Your task to perform on an android device: turn off improve location accuracy Image 0: 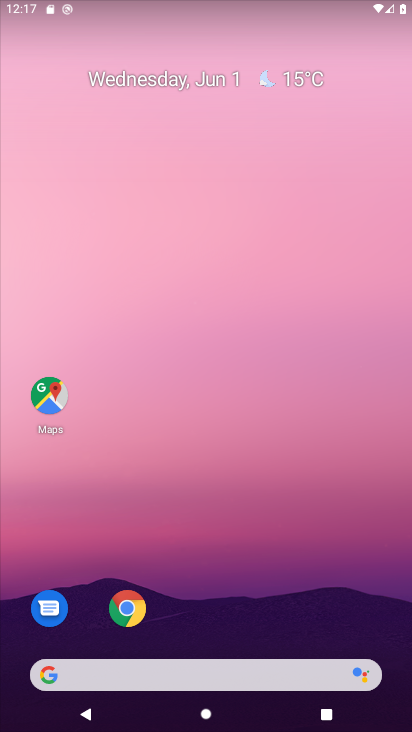
Step 0: drag from (231, 549) to (334, 116)
Your task to perform on an android device: turn off improve location accuracy Image 1: 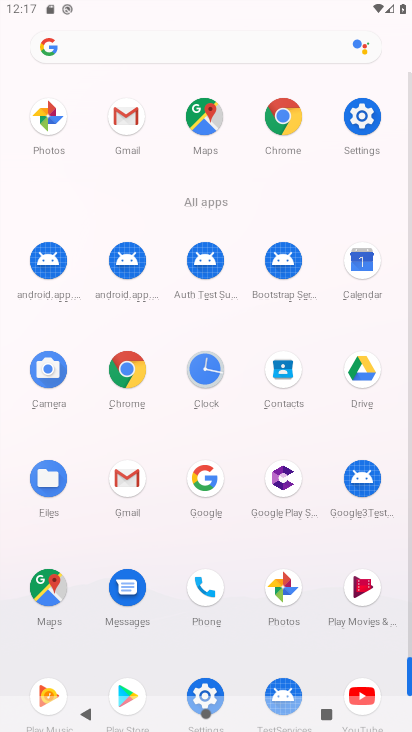
Step 1: click (365, 115)
Your task to perform on an android device: turn off improve location accuracy Image 2: 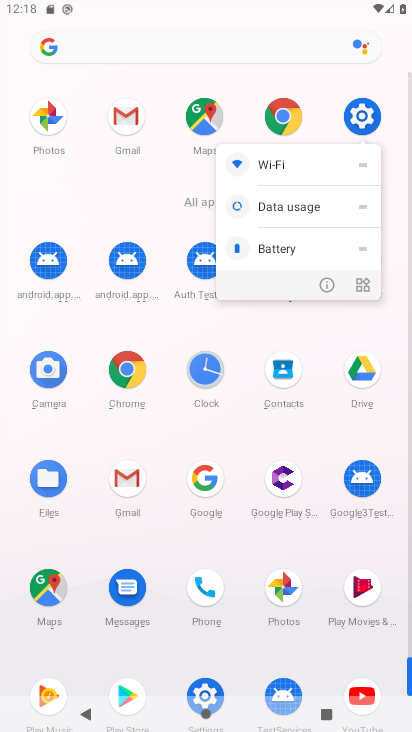
Step 2: click (363, 119)
Your task to perform on an android device: turn off improve location accuracy Image 3: 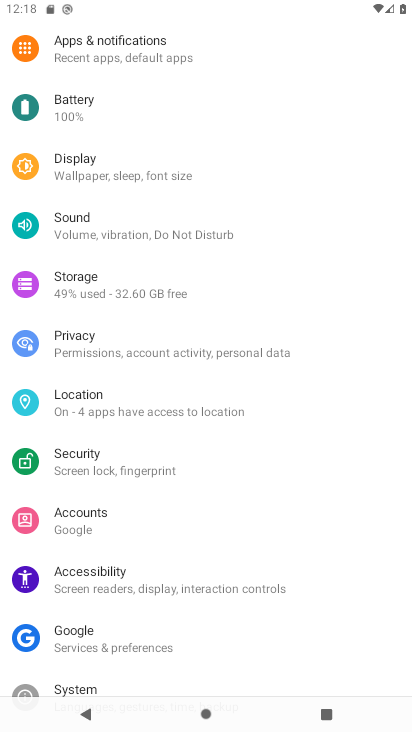
Step 3: click (115, 413)
Your task to perform on an android device: turn off improve location accuracy Image 4: 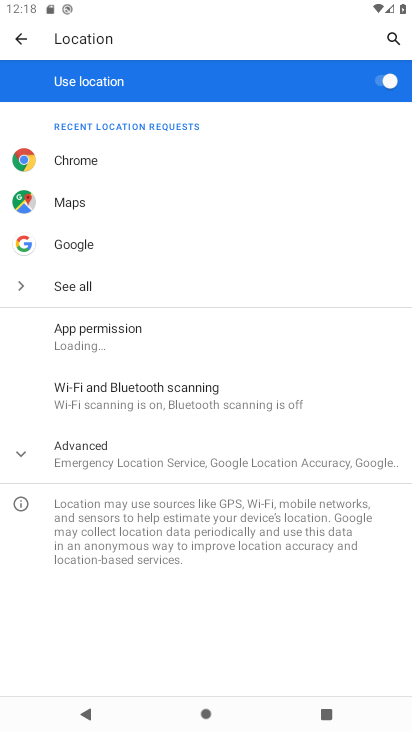
Step 4: click (140, 464)
Your task to perform on an android device: turn off improve location accuracy Image 5: 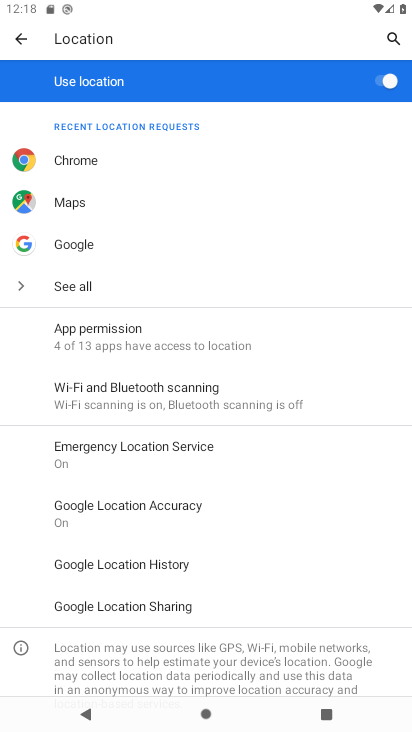
Step 5: click (169, 509)
Your task to perform on an android device: turn off improve location accuracy Image 6: 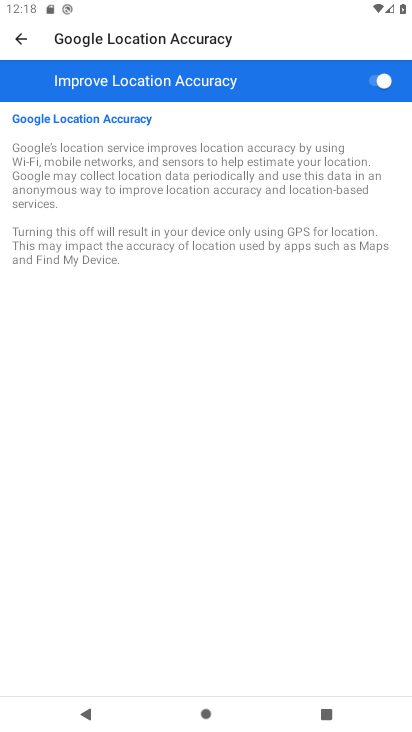
Step 6: click (337, 81)
Your task to perform on an android device: turn off improve location accuracy Image 7: 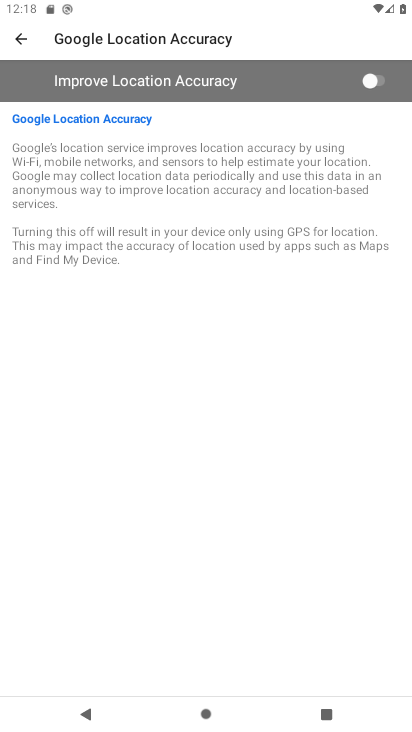
Step 7: task complete